Your task to perform on an android device: set an alarm Image 0: 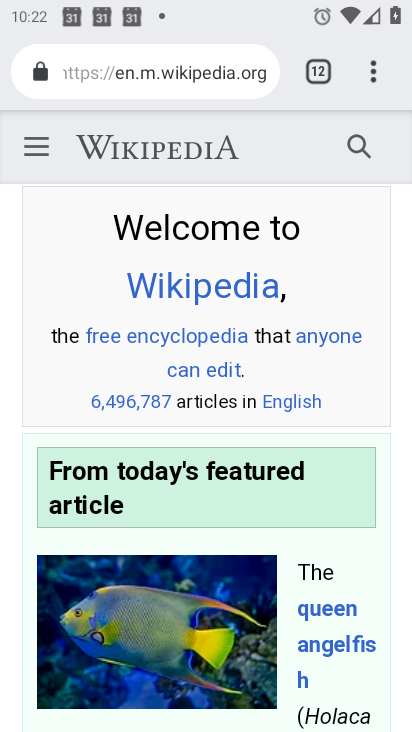
Step 0: press home button
Your task to perform on an android device: set an alarm Image 1: 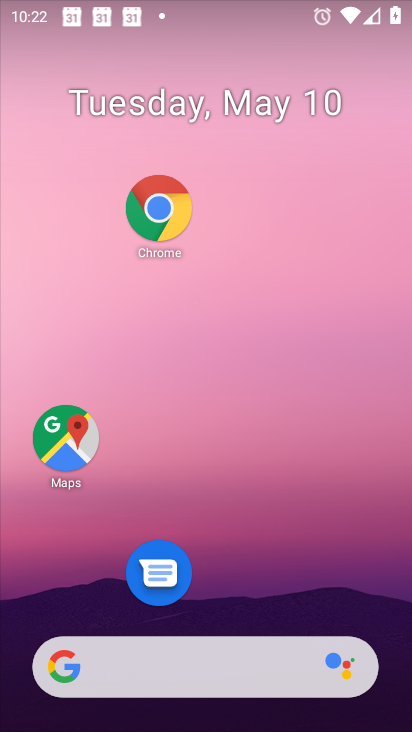
Step 1: drag from (252, 687) to (297, 156)
Your task to perform on an android device: set an alarm Image 2: 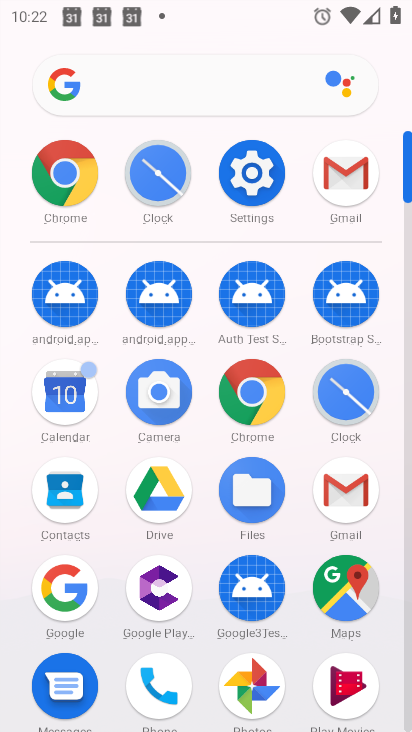
Step 2: click (347, 389)
Your task to perform on an android device: set an alarm Image 3: 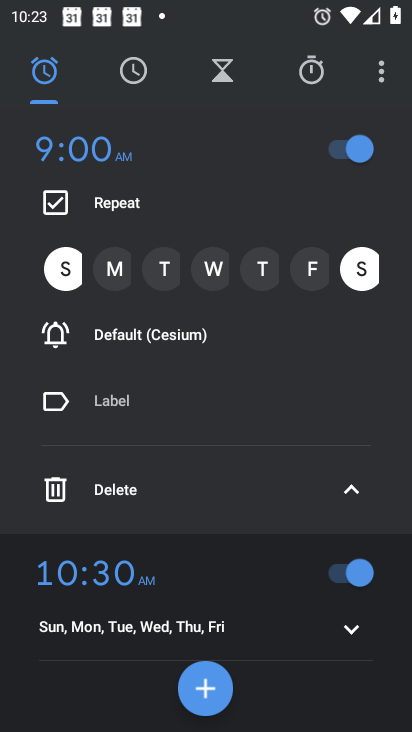
Step 3: click (214, 272)
Your task to perform on an android device: set an alarm Image 4: 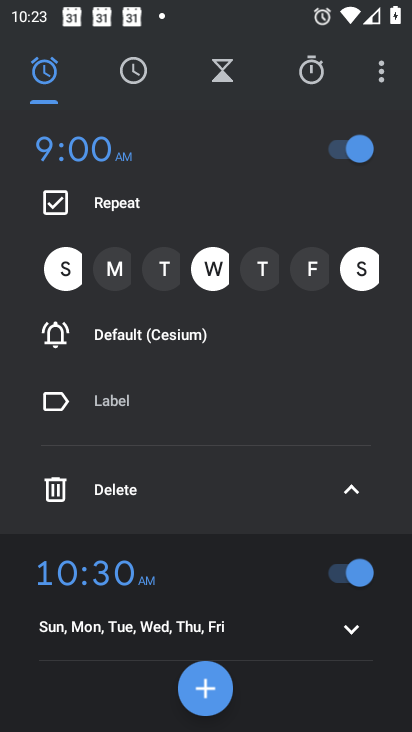
Step 4: click (268, 271)
Your task to perform on an android device: set an alarm Image 5: 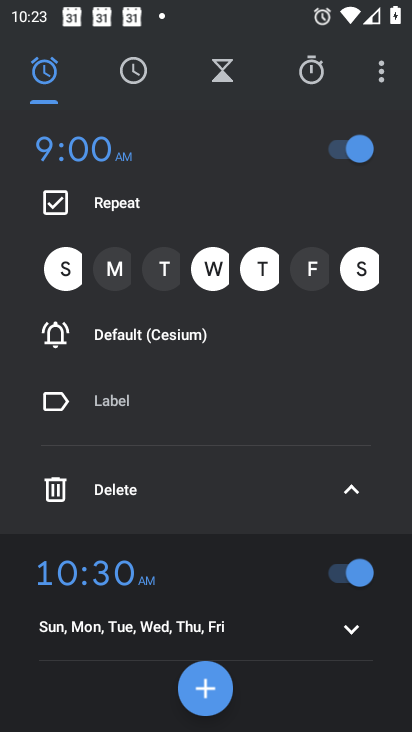
Step 5: task complete